Your task to perform on an android device: Turn off the flashlight Image 0: 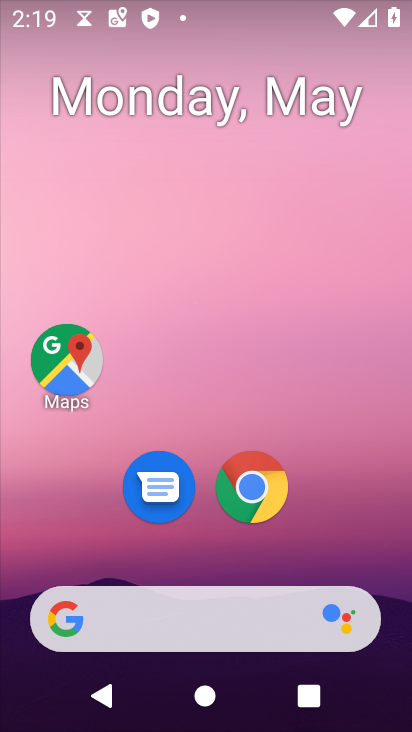
Step 0: drag from (392, 563) to (332, 91)
Your task to perform on an android device: Turn off the flashlight Image 1: 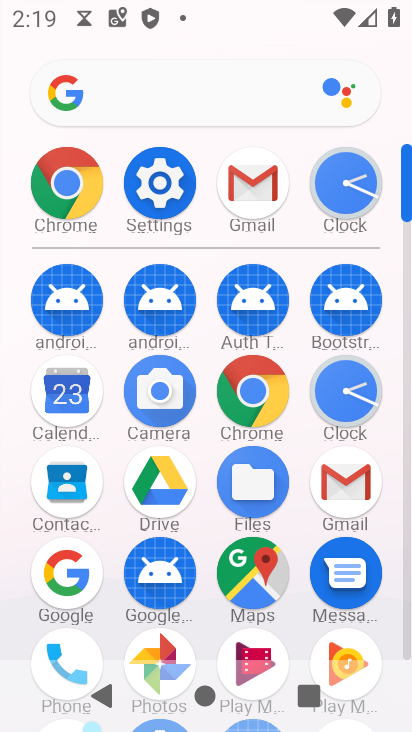
Step 1: drag from (311, 11) to (249, 570)
Your task to perform on an android device: Turn off the flashlight Image 2: 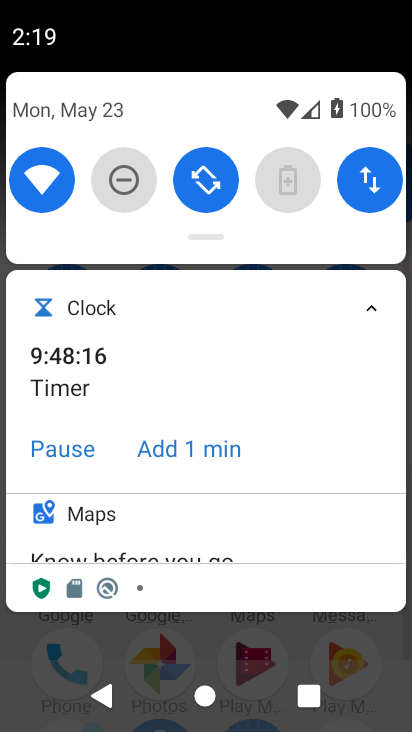
Step 2: drag from (254, 222) to (246, 504)
Your task to perform on an android device: Turn off the flashlight Image 3: 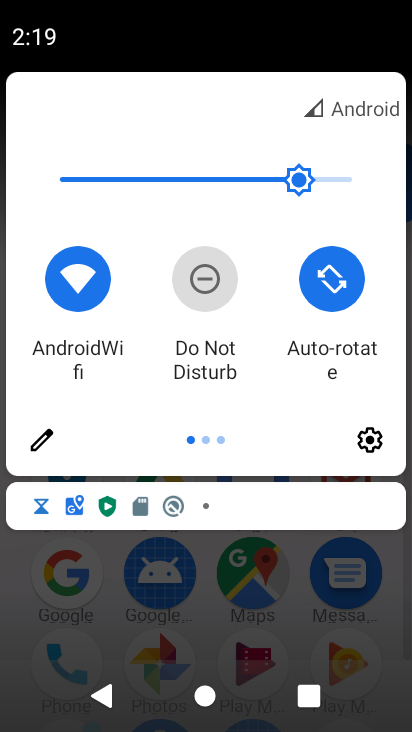
Step 3: click (45, 434)
Your task to perform on an android device: Turn off the flashlight Image 4: 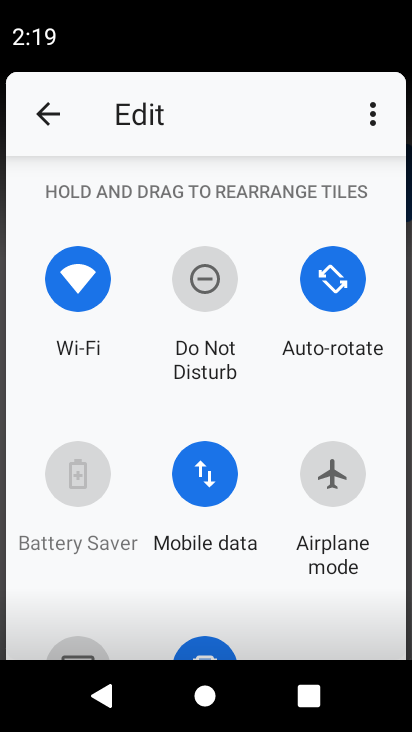
Step 4: task complete